Your task to perform on an android device: turn smart compose on in the gmail app Image 0: 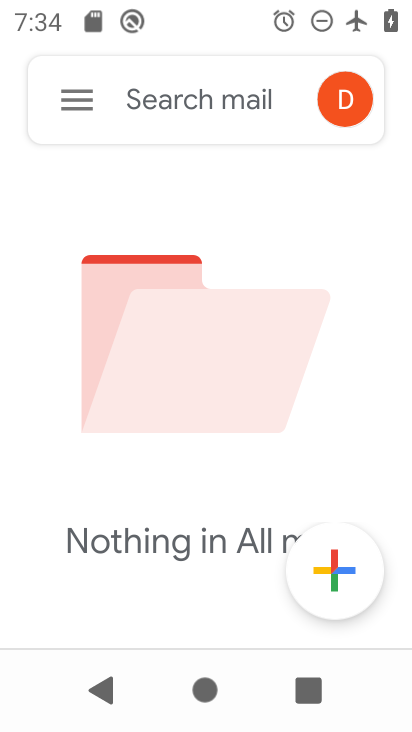
Step 0: press home button
Your task to perform on an android device: turn smart compose on in the gmail app Image 1: 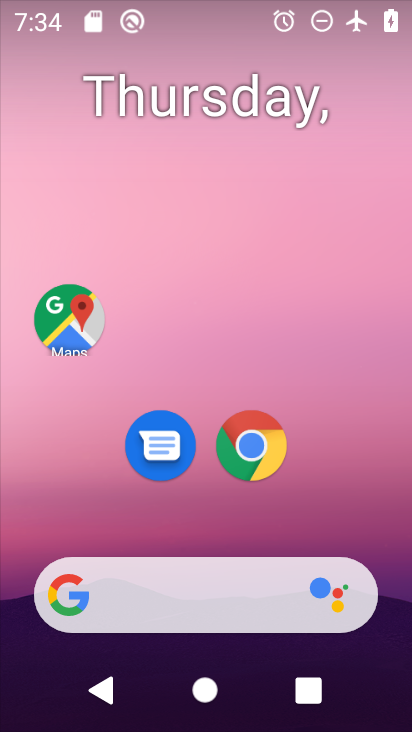
Step 1: drag from (334, 491) to (245, 5)
Your task to perform on an android device: turn smart compose on in the gmail app Image 2: 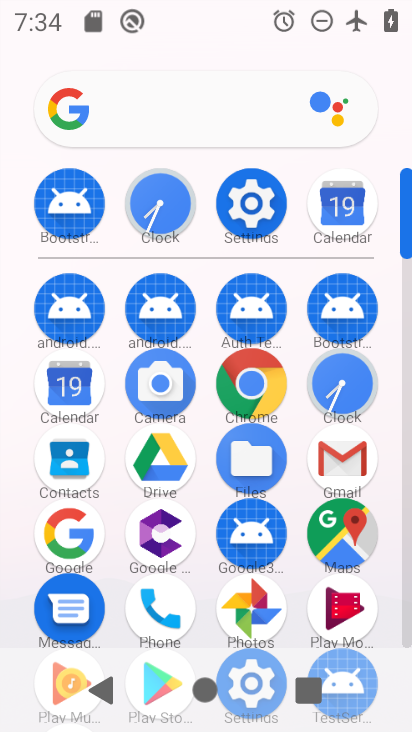
Step 2: click (336, 456)
Your task to perform on an android device: turn smart compose on in the gmail app Image 3: 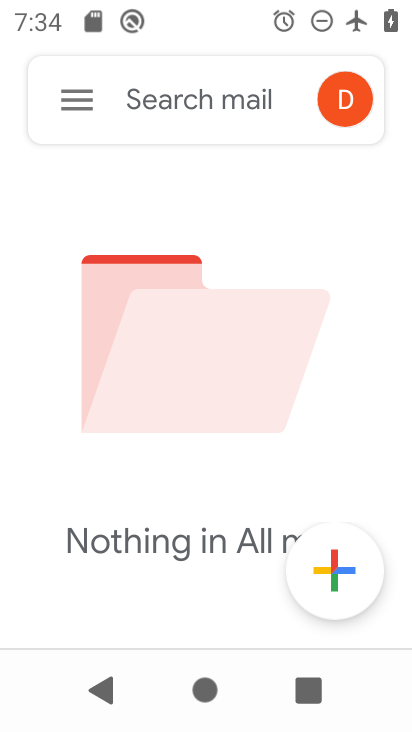
Step 3: click (68, 92)
Your task to perform on an android device: turn smart compose on in the gmail app Image 4: 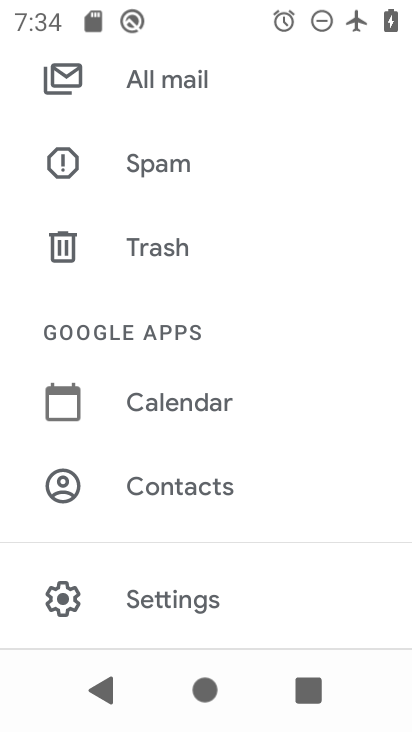
Step 4: click (166, 598)
Your task to perform on an android device: turn smart compose on in the gmail app Image 5: 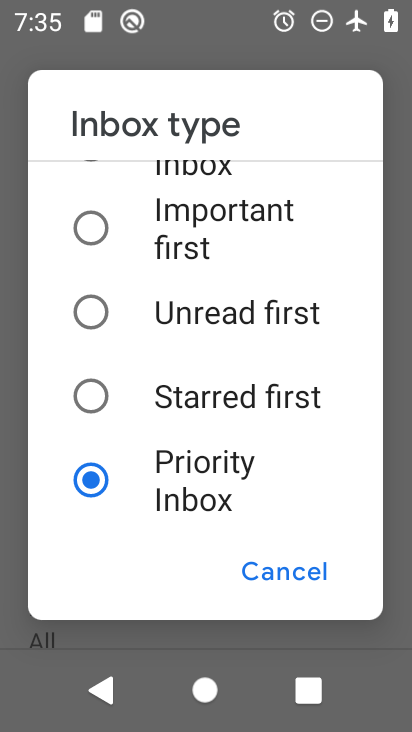
Step 5: click (277, 572)
Your task to perform on an android device: turn smart compose on in the gmail app Image 6: 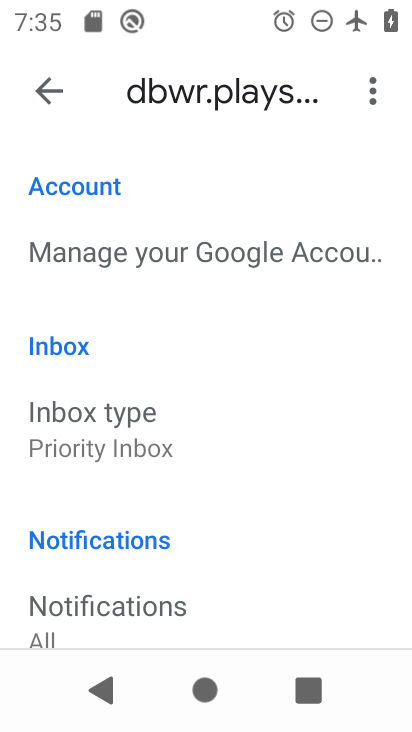
Step 6: task complete